Your task to perform on an android device: turn on notifications settings in the gmail app Image 0: 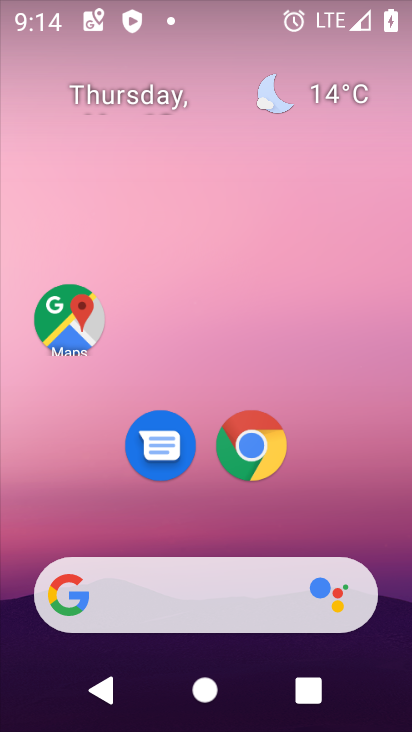
Step 0: drag from (216, 728) to (215, 98)
Your task to perform on an android device: turn on notifications settings in the gmail app Image 1: 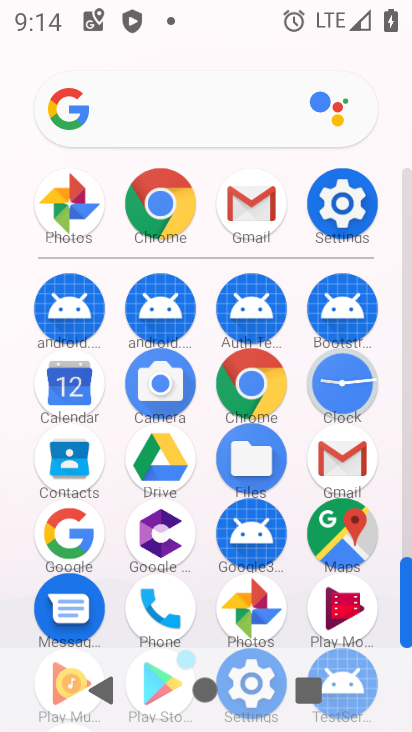
Step 1: click (247, 196)
Your task to perform on an android device: turn on notifications settings in the gmail app Image 2: 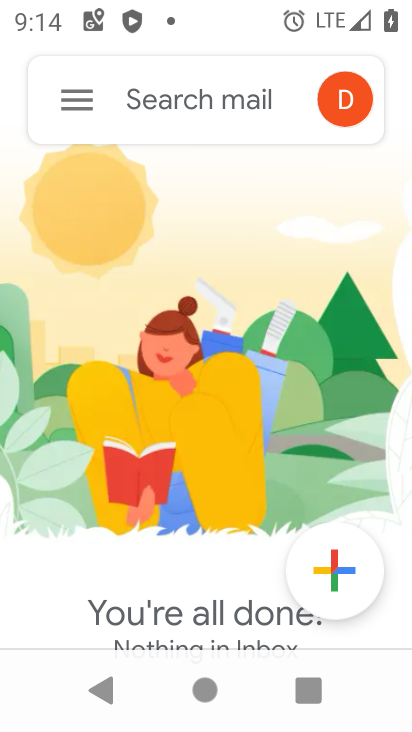
Step 2: click (77, 96)
Your task to perform on an android device: turn on notifications settings in the gmail app Image 3: 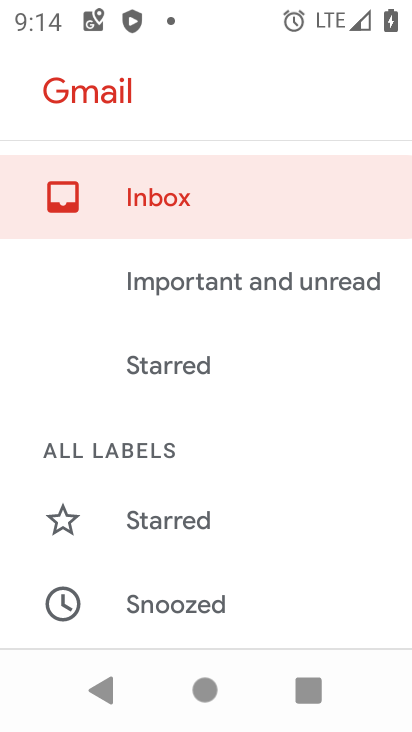
Step 3: drag from (134, 296) to (134, 175)
Your task to perform on an android device: turn on notifications settings in the gmail app Image 4: 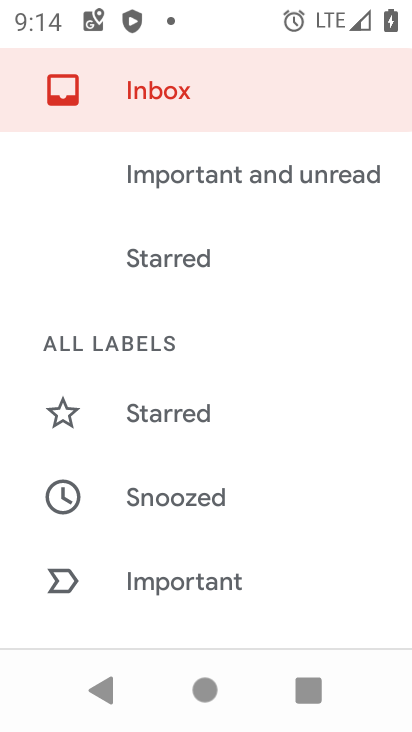
Step 4: drag from (173, 599) to (179, 148)
Your task to perform on an android device: turn on notifications settings in the gmail app Image 5: 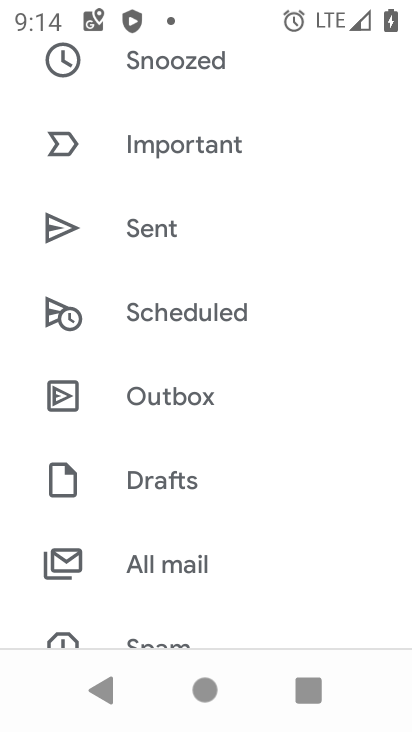
Step 5: drag from (193, 589) to (193, 127)
Your task to perform on an android device: turn on notifications settings in the gmail app Image 6: 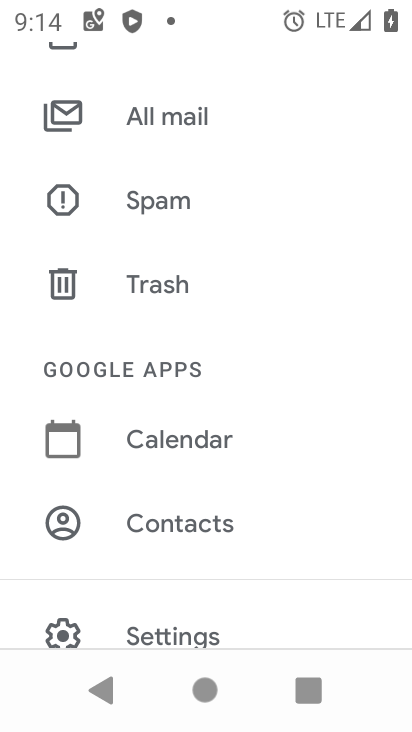
Step 6: drag from (170, 616) to (188, 262)
Your task to perform on an android device: turn on notifications settings in the gmail app Image 7: 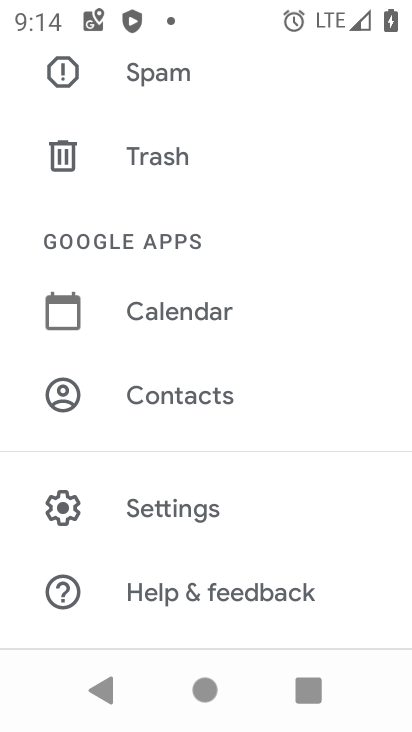
Step 7: click (169, 510)
Your task to perform on an android device: turn on notifications settings in the gmail app Image 8: 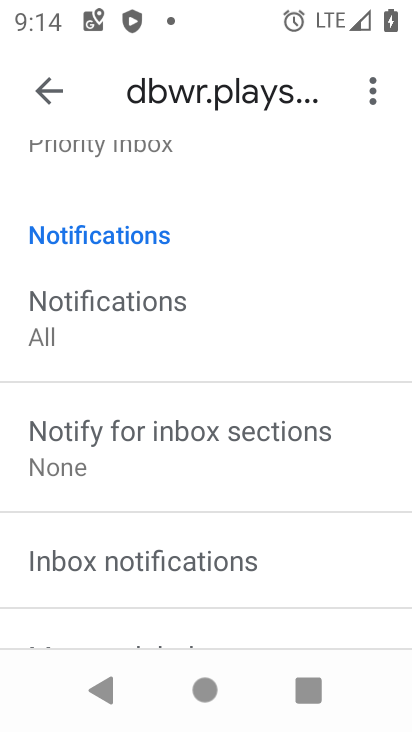
Step 8: task complete